Your task to perform on an android device: Go to sound settings Image 0: 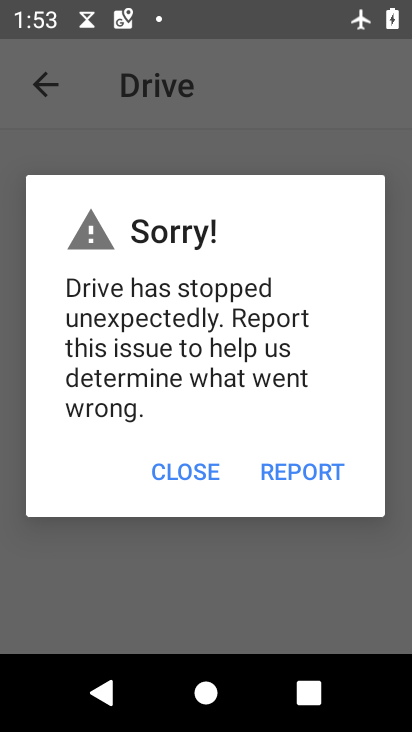
Step 0: press home button
Your task to perform on an android device: Go to sound settings Image 1: 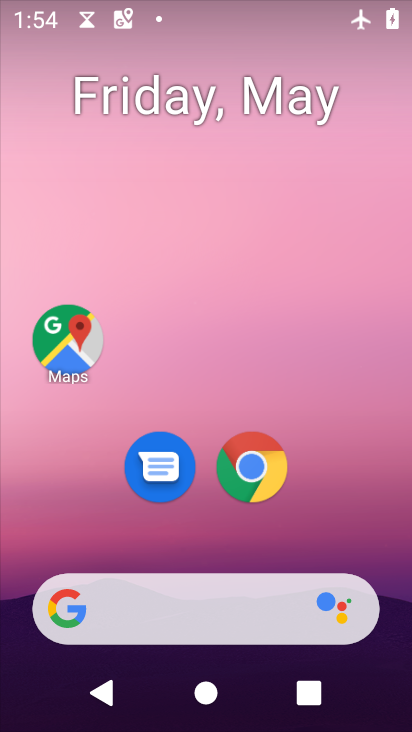
Step 1: drag from (357, 514) to (327, 100)
Your task to perform on an android device: Go to sound settings Image 2: 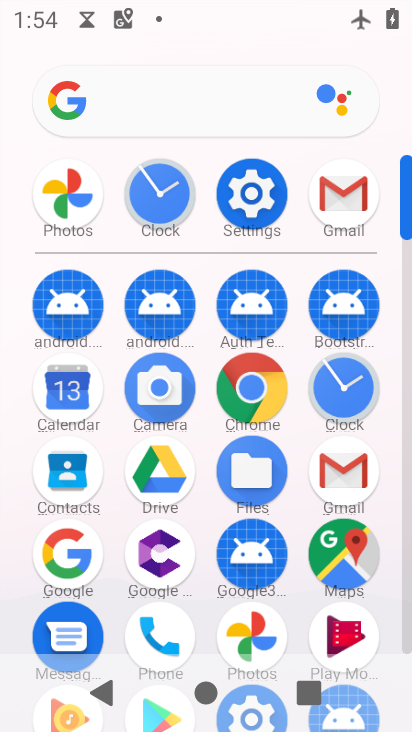
Step 2: click (252, 195)
Your task to perform on an android device: Go to sound settings Image 3: 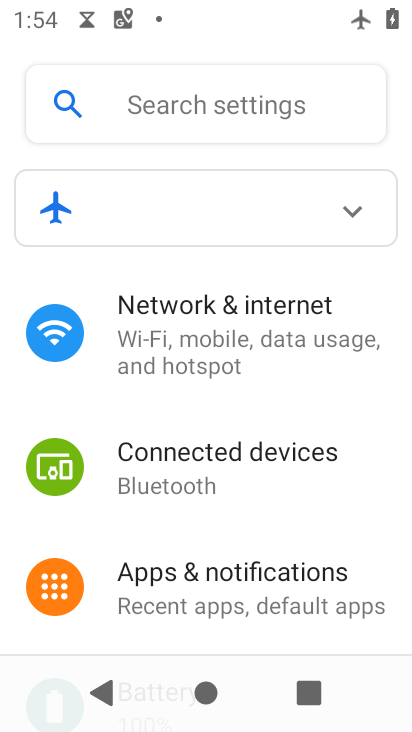
Step 3: drag from (215, 506) to (254, 382)
Your task to perform on an android device: Go to sound settings Image 4: 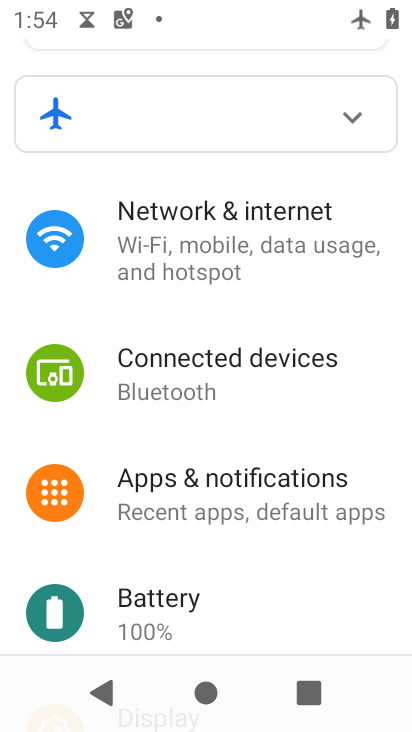
Step 4: drag from (197, 537) to (261, 400)
Your task to perform on an android device: Go to sound settings Image 5: 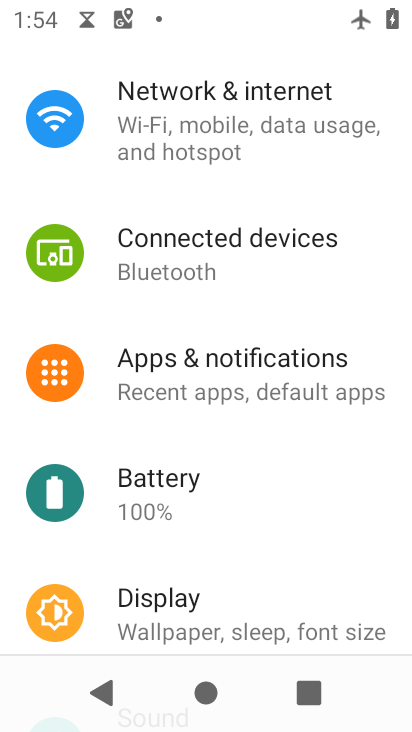
Step 5: drag from (212, 547) to (252, 395)
Your task to perform on an android device: Go to sound settings Image 6: 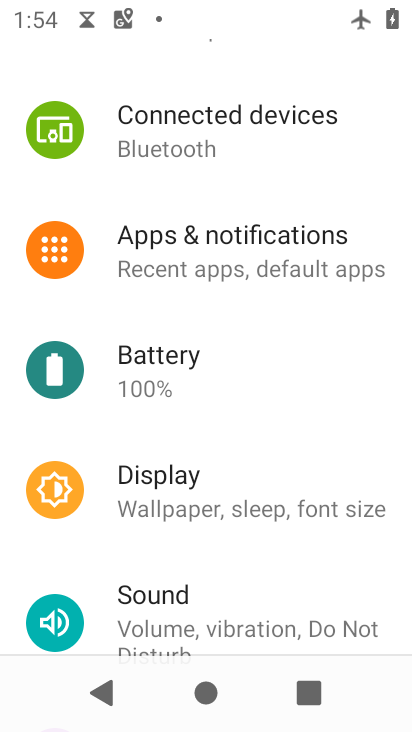
Step 6: click (278, 467)
Your task to perform on an android device: Go to sound settings Image 7: 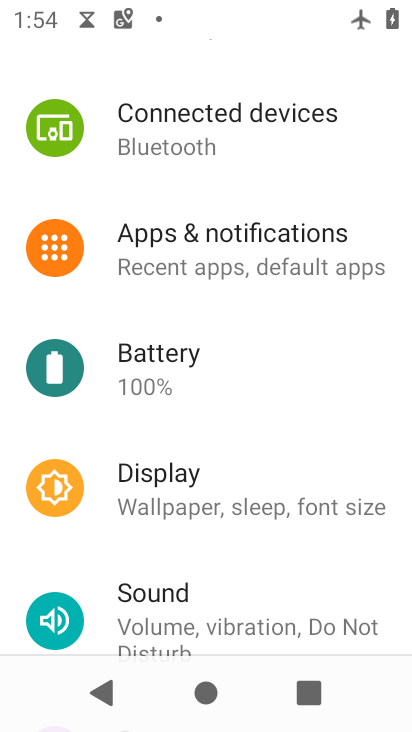
Step 7: click (175, 593)
Your task to perform on an android device: Go to sound settings Image 8: 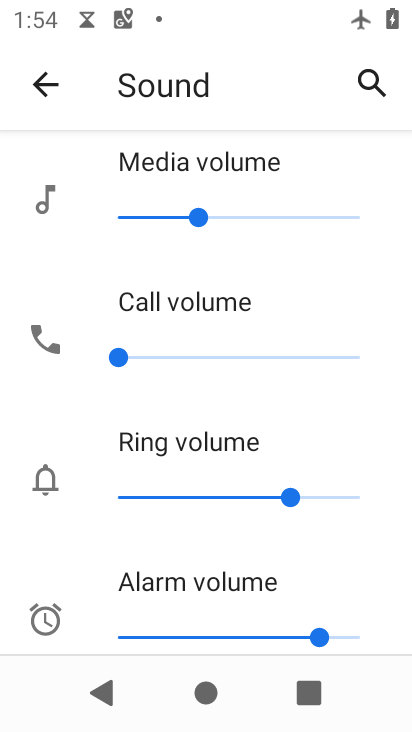
Step 8: task complete